Your task to perform on an android device: Set the phone to "Do not disturb". Image 0: 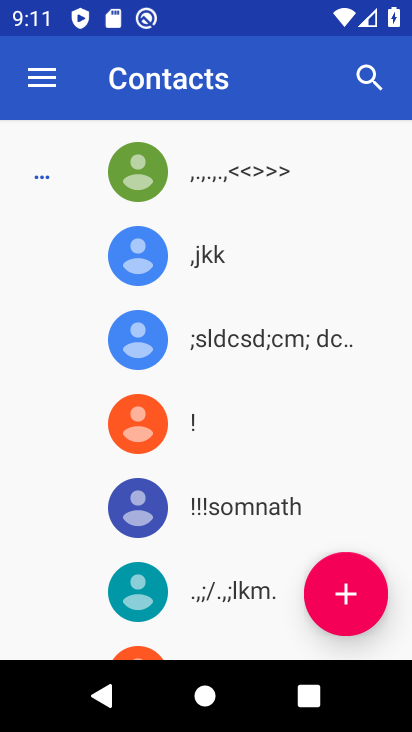
Step 0: drag from (246, 3) to (233, 556)
Your task to perform on an android device: Set the phone to "Do not disturb". Image 1: 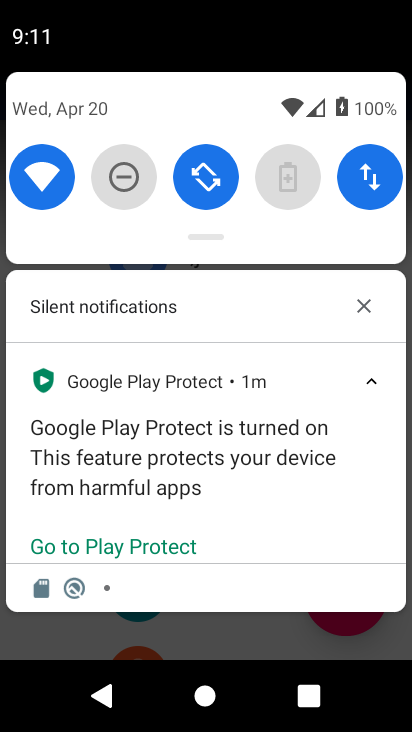
Step 1: click (114, 182)
Your task to perform on an android device: Set the phone to "Do not disturb". Image 2: 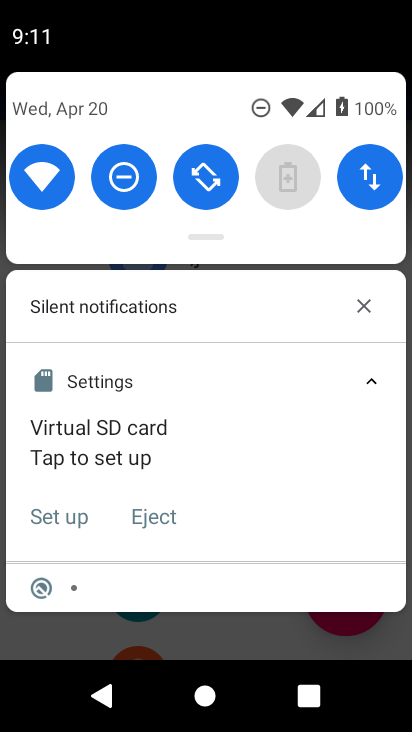
Step 2: task complete